Your task to perform on an android device: change the clock display to digital Image 0: 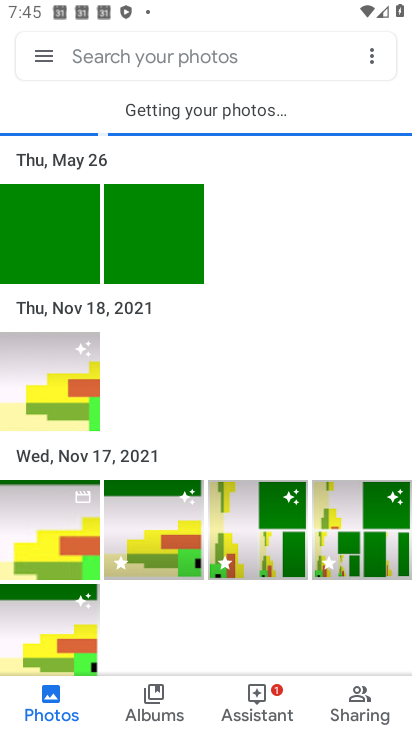
Step 0: press home button
Your task to perform on an android device: change the clock display to digital Image 1: 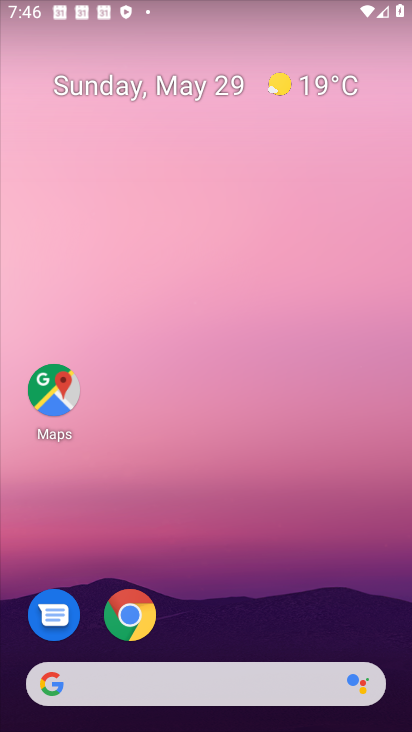
Step 1: drag from (133, 730) to (158, 39)
Your task to perform on an android device: change the clock display to digital Image 2: 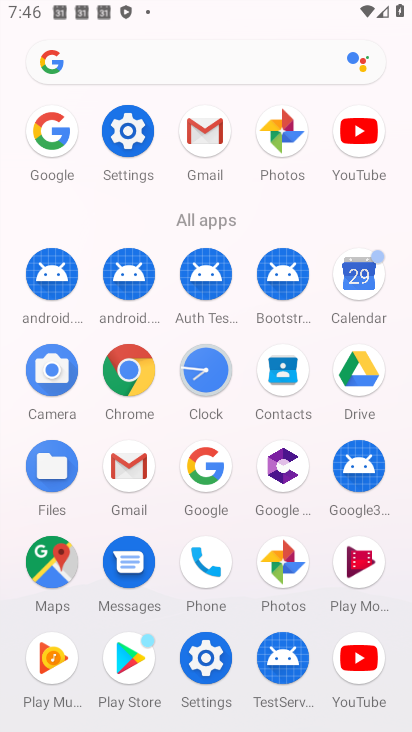
Step 2: click (197, 381)
Your task to perform on an android device: change the clock display to digital Image 3: 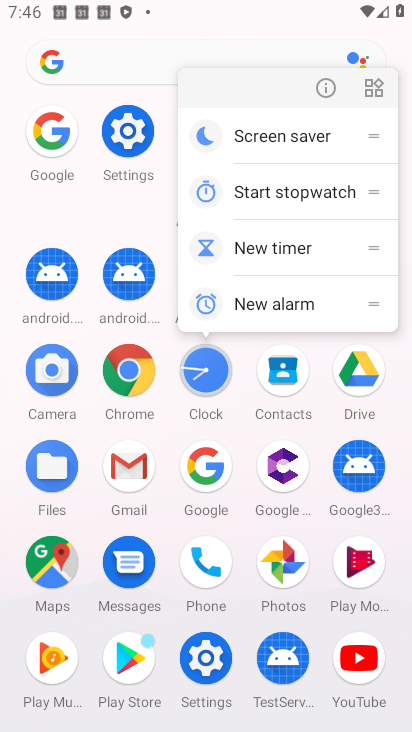
Step 3: click (216, 381)
Your task to perform on an android device: change the clock display to digital Image 4: 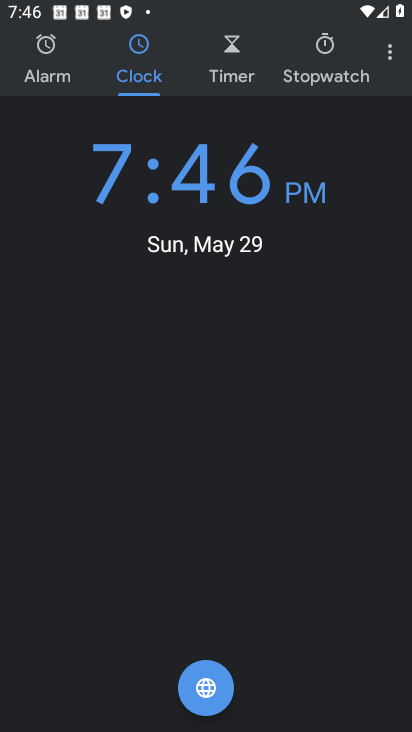
Step 4: click (396, 54)
Your task to perform on an android device: change the clock display to digital Image 5: 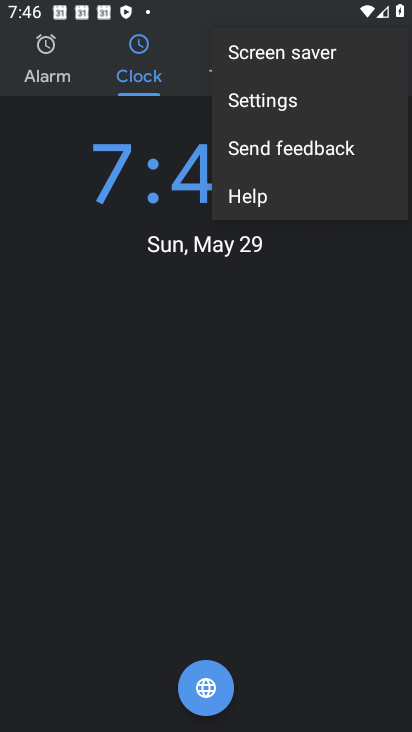
Step 5: click (272, 110)
Your task to perform on an android device: change the clock display to digital Image 6: 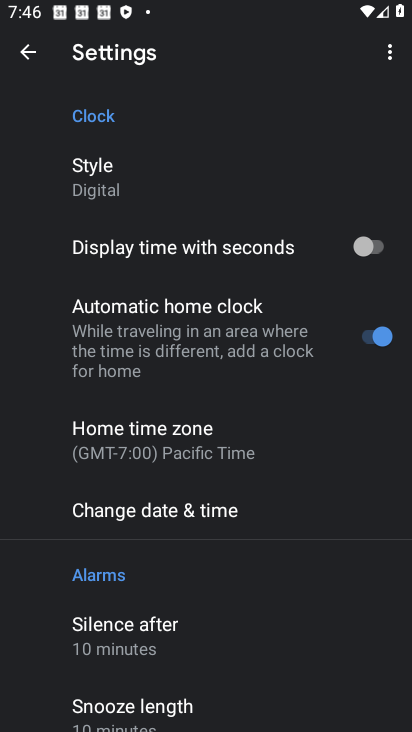
Step 6: task complete